Your task to perform on an android device: Search for vegetarian restaurants on Maps Image 0: 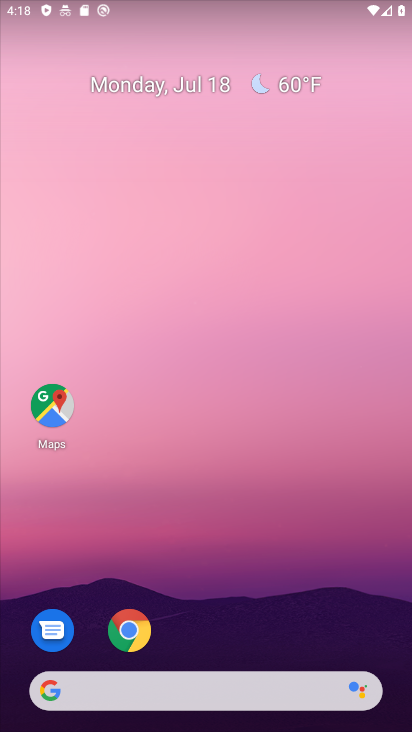
Step 0: drag from (250, 686) to (148, 233)
Your task to perform on an android device: Search for vegetarian restaurants on Maps Image 1: 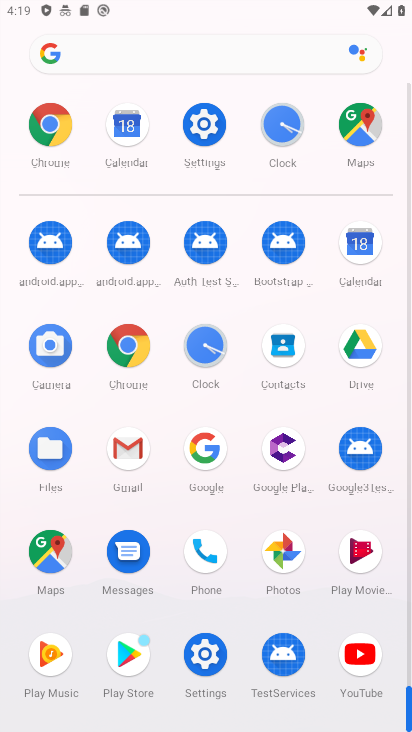
Step 1: click (40, 556)
Your task to perform on an android device: Search for vegetarian restaurants on Maps Image 2: 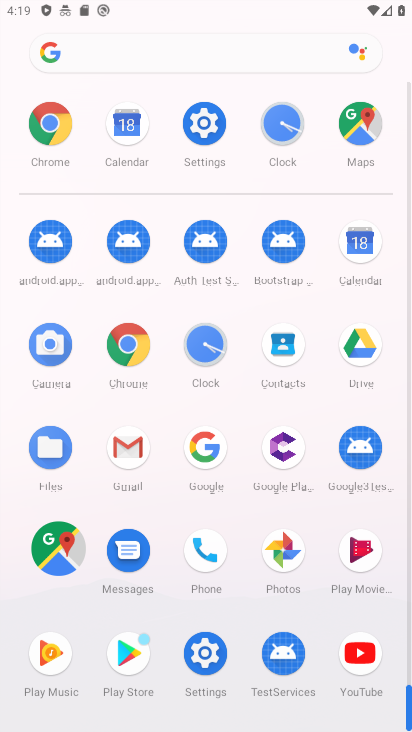
Step 2: click (41, 549)
Your task to perform on an android device: Search for vegetarian restaurants on Maps Image 3: 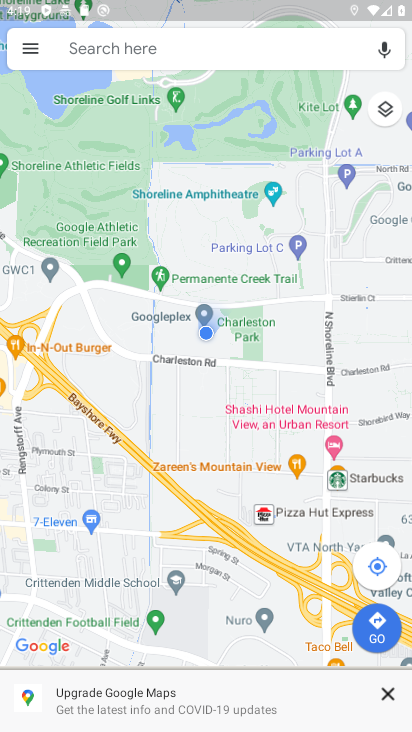
Step 3: click (72, 44)
Your task to perform on an android device: Search for vegetarian restaurants on Maps Image 4: 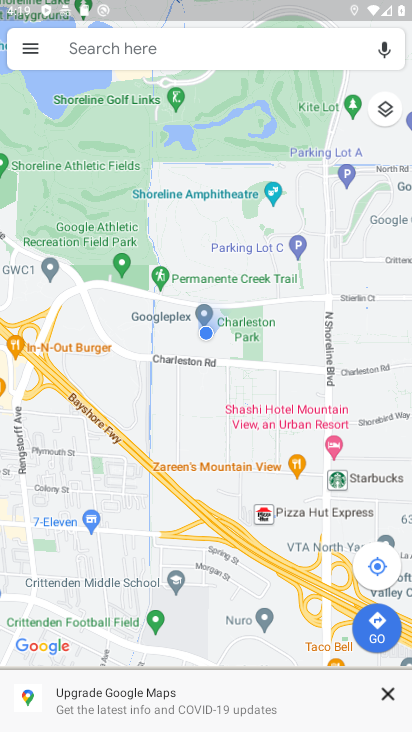
Step 4: click (73, 45)
Your task to perform on an android device: Search for vegetarian restaurants on Maps Image 5: 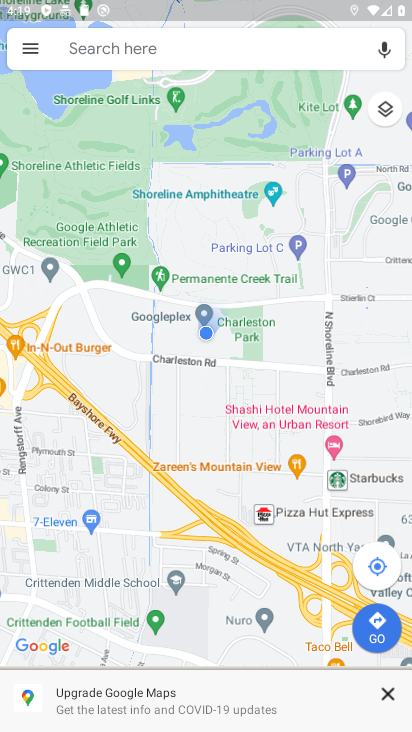
Step 5: click (73, 45)
Your task to perform on an android device: Search for vegetarian restaurants on Maps Image 6: 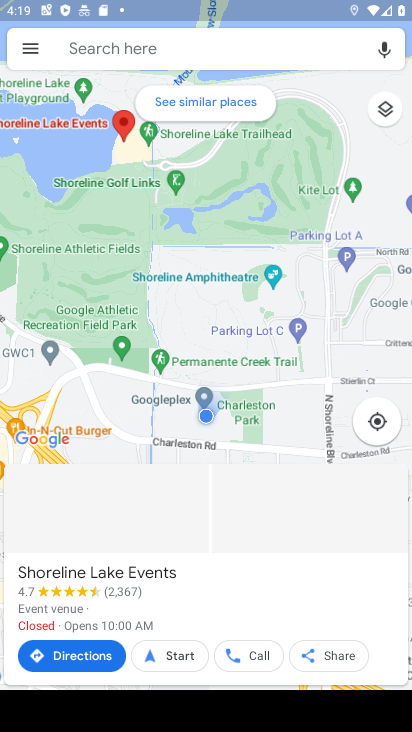
Step 6: click (76, 48)
Your task to perform on an android device: Search for vegetarian restaurants on Maps Image 7: 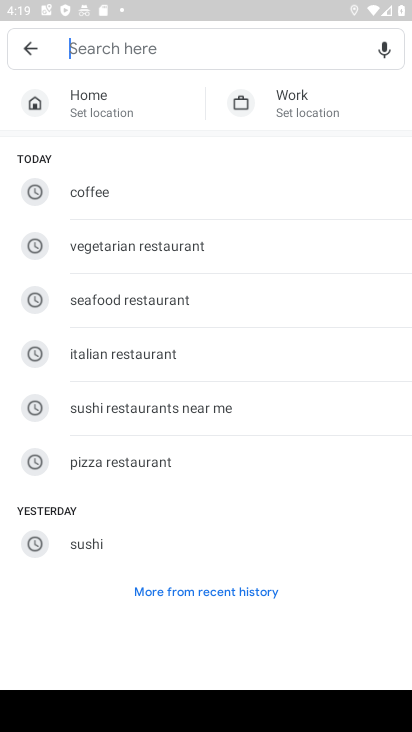
Step 7: click (117, 248)
Your task to perform on an android device: Search for vegetarian restaurants on Maps Image 8: 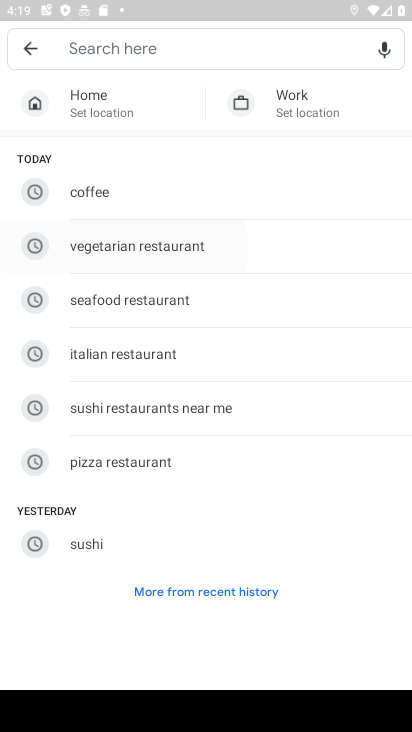
Step 8: click (116, 247)
Your task to perform on an android device: Search for vegetarian restaurants on Maps Image 9: 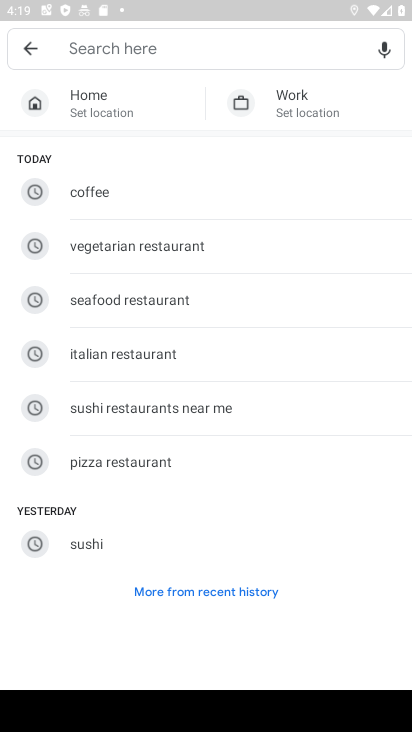
Step 9: click (120, 244)
Your task to perform on an android device: Search for vegetarian restaurants on Maps Image 10: 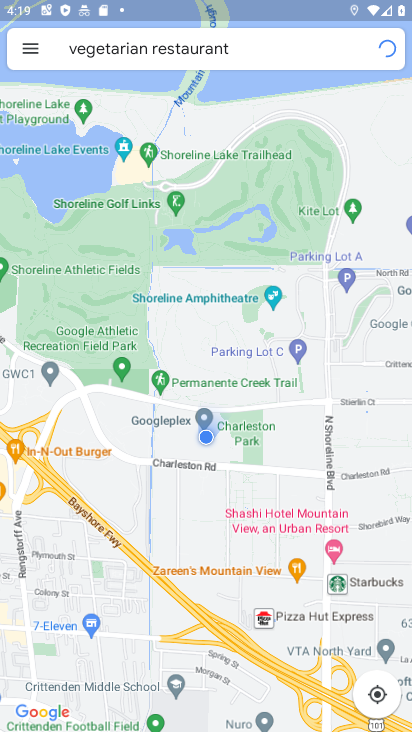
Step 10: task complete